Your task to perform on an android device: Is it going to rain today? Image 0: 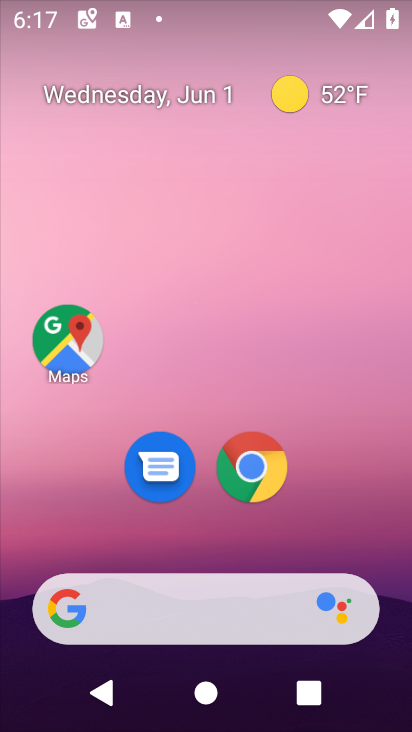
Step 0: click (327, 93)
Your task to perform on an android device: Is it going to rain today? Image 1: 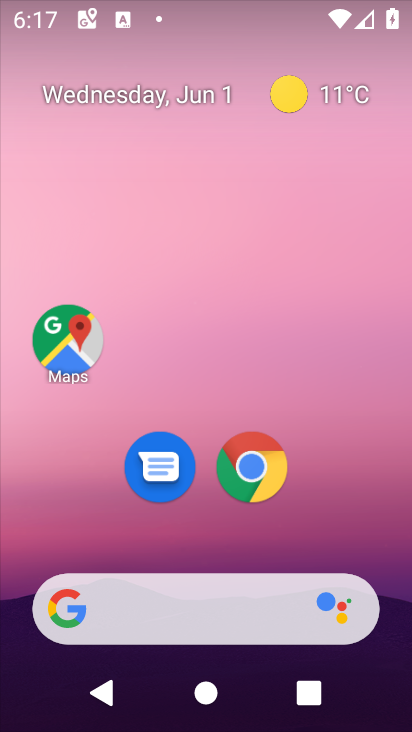
Step 1: click (336, 92)
Your task to perform on an android device: Is it going to rain today? Image 2: 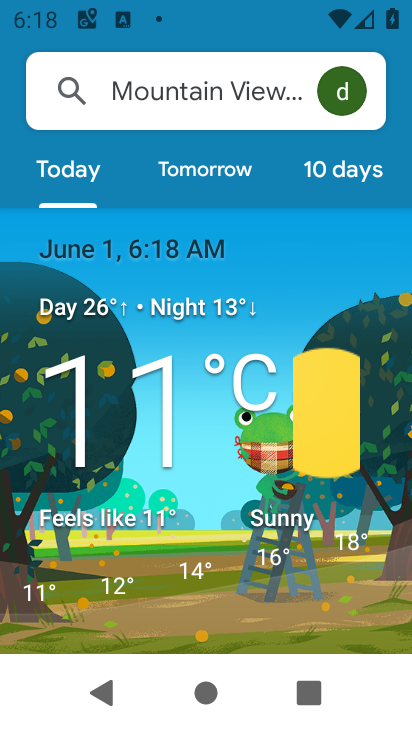
Step 2: task complete